Your task to perform on an android device: See recent photos Image 0: 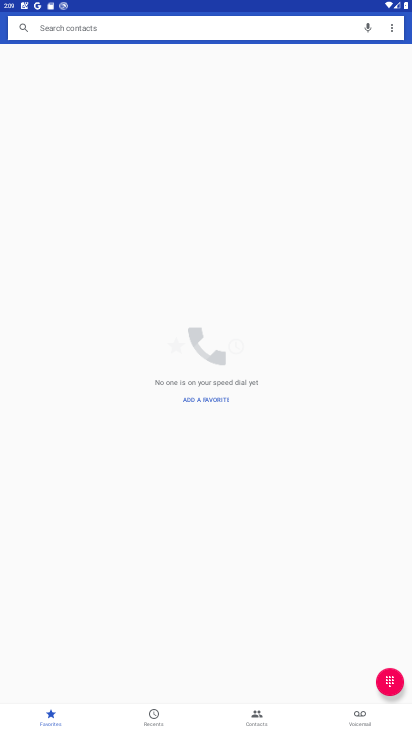
Step 0: press home button
Your task to perform on an android device: See recent photos Image 1: 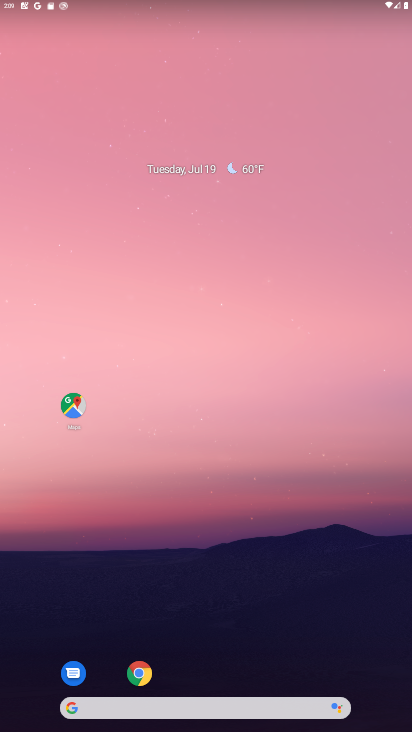
Step 1: drag from (162, 725) to (92, 192)
Your task to perform on an android device: See recent photos Image 2: 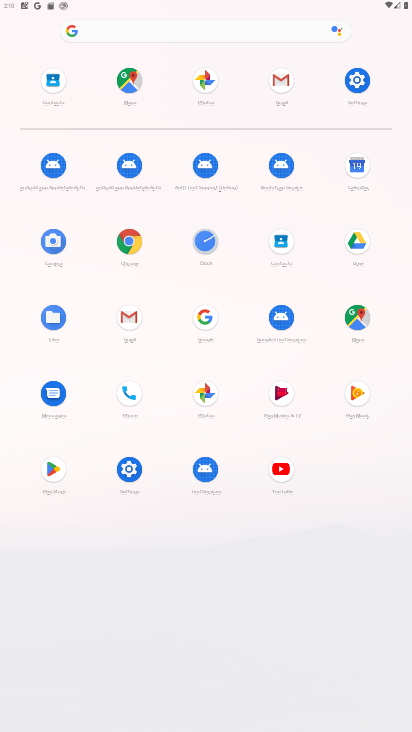
Step 2: click (204, 396)
Your task to perform on an android device: See recent photos Image 3: 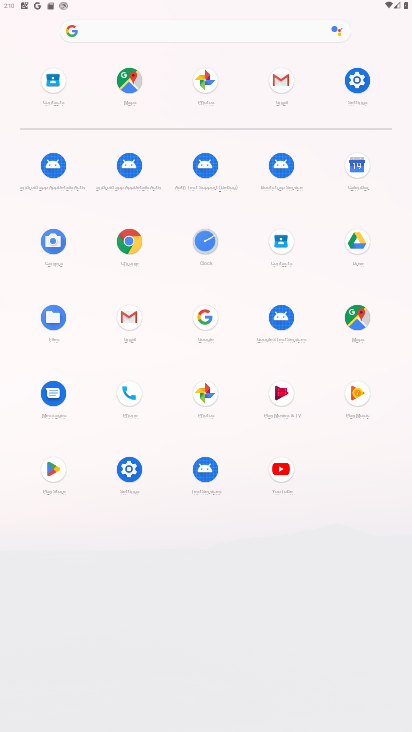
Step 3: click (204, 396)
Your task to perform on an android device: See recent photos Image 4: 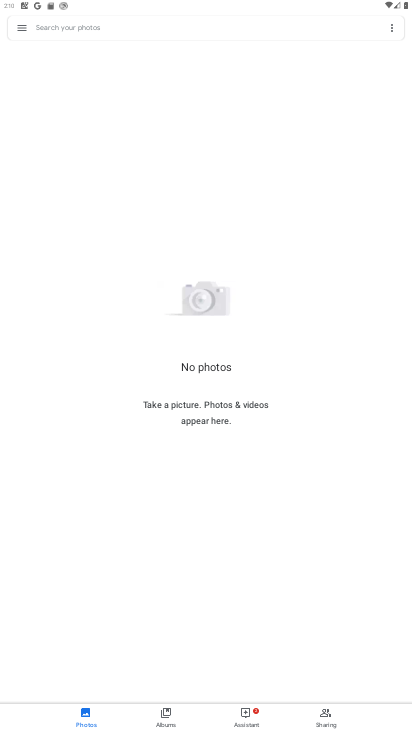
Step 4: task complete